Your task to perform on an android device: Check the weather Image 0: 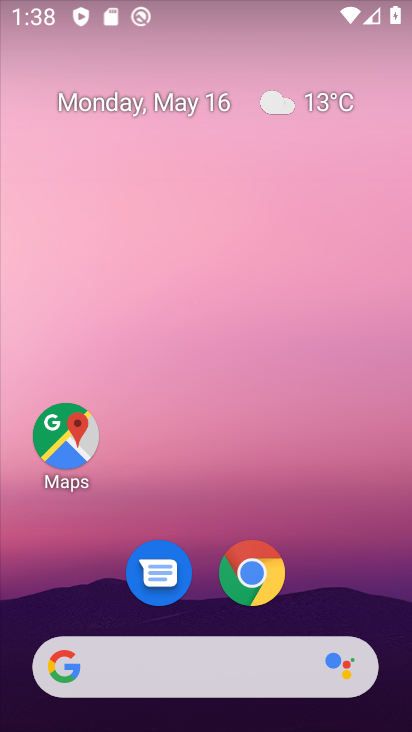
Step 0: click (315, 110)
Your task to perform on an android device: Check the weather Image 1: 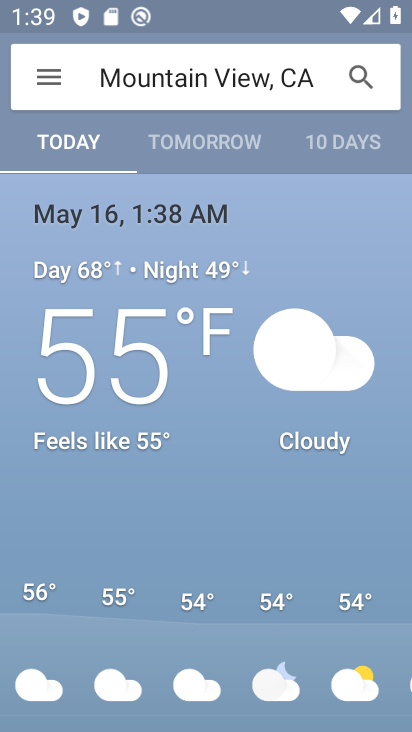
Step 1: task complete